Your task to perform on an android device: open sync settings in chrome Image 0: 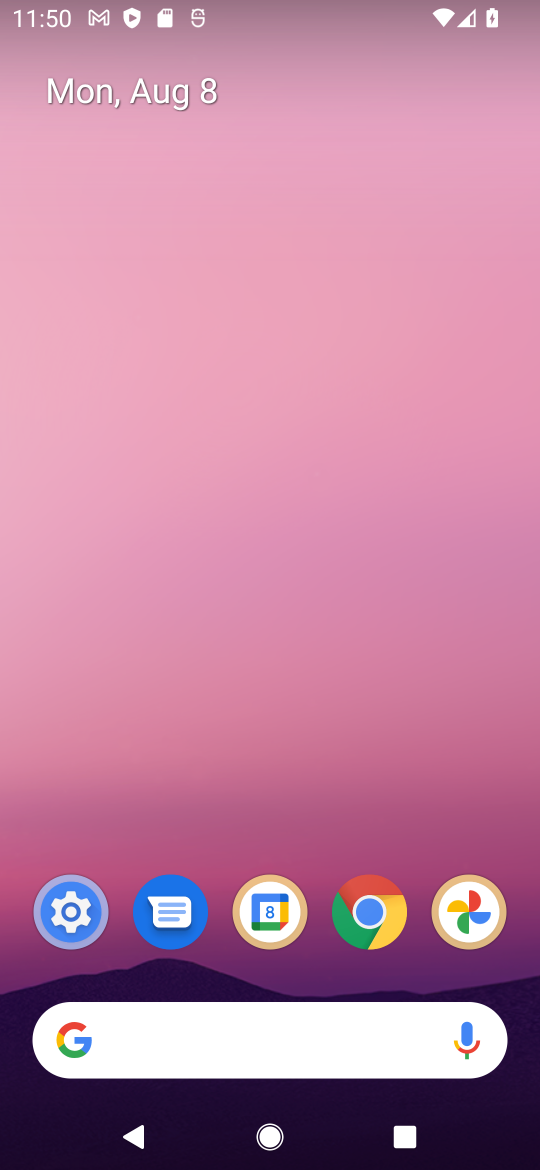
Step 0: click (361, 920)
Your task to perform on an android device: open sync settings in chrome Image 1: 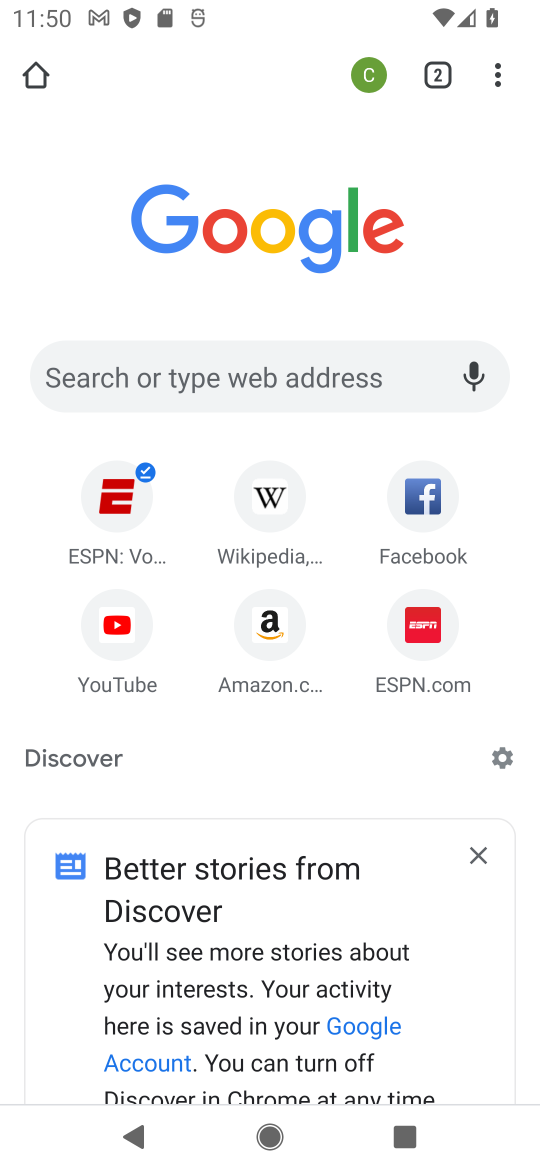
Step 1: drag from (494, 80) to (264, 715)
Your task to perform on an android device: open sync settings in chrome Image 2: 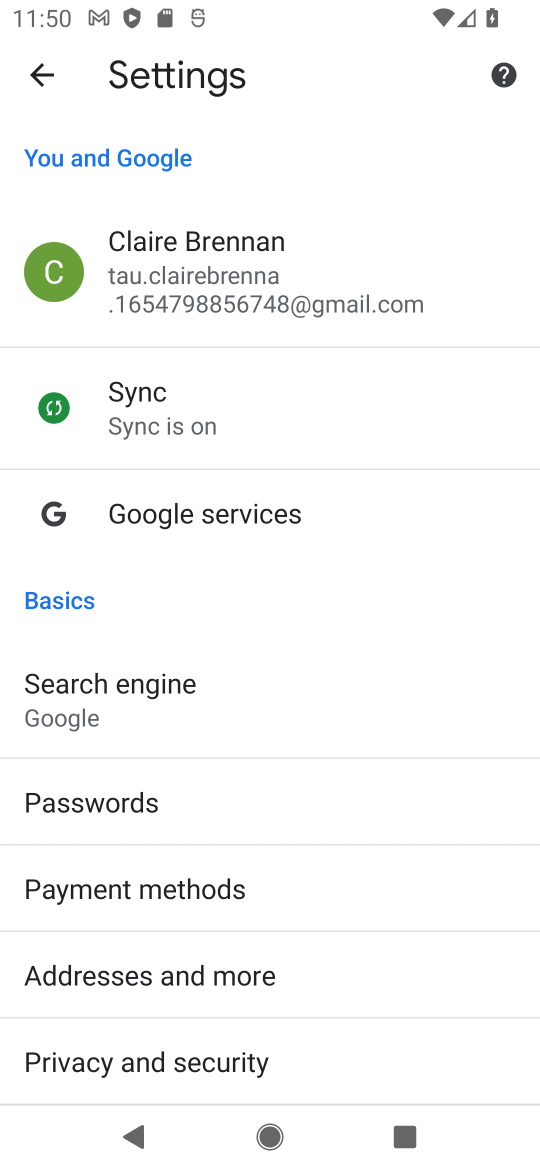
Step 2: click (282, 423)
Your task to perform on an android device: open sync settings in chrome Image 3: 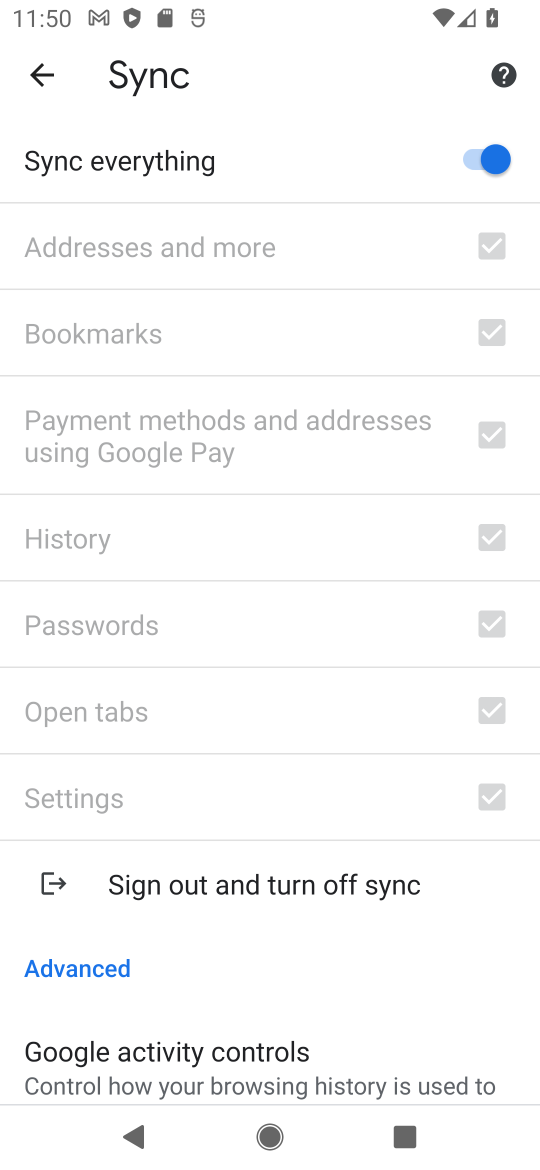
Step 3: task complete